Your task to perform on an android device: Open Youtube and go to "Your channel" Image 0: 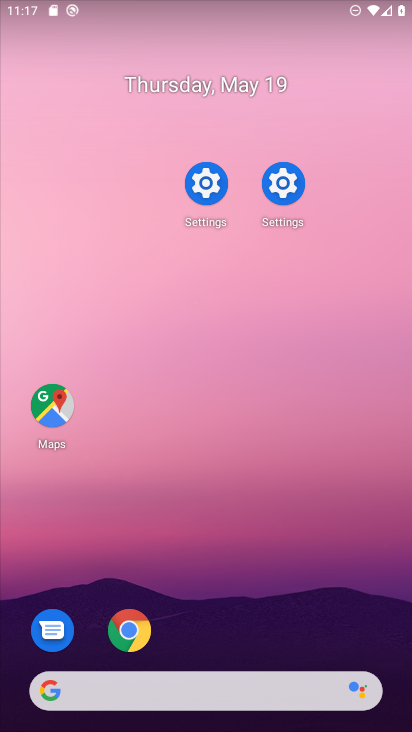
Step 0: drag from (270, 668) to (188, 64)
Your task to perform on an android device: Open Youtube and go to "Your channel" Image 1: 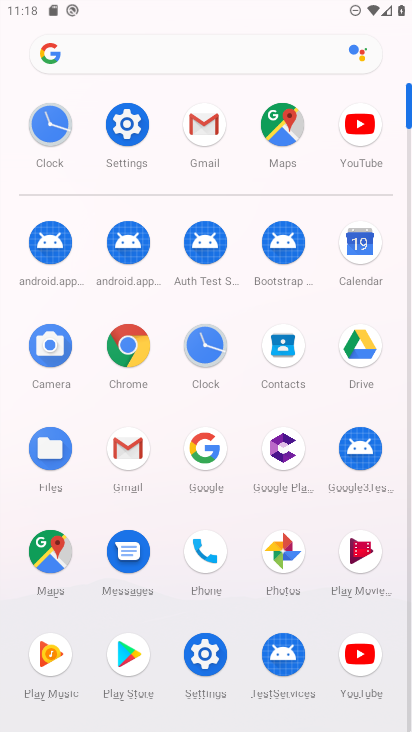
Step 1: click (351, 667)
Your task to perform on an android device: Open Youtube and go to "Your channel" Image 2: 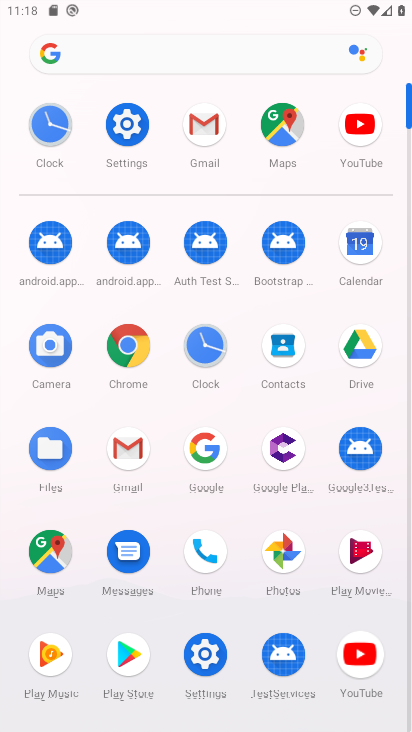
Step 2: click (351, 667)
Your task to perform on an android device: Open Youtube and go to "Your channel" Image 3: 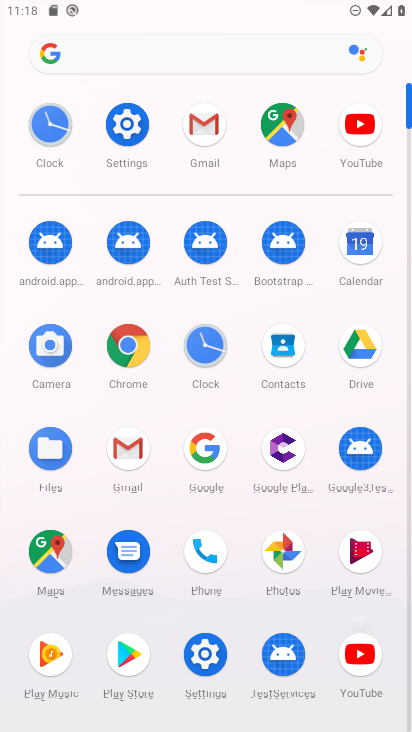
Step 3: click (351, 668)
Your task to perform on an android device: Open Youtube and go to "Your channel" Image 4: 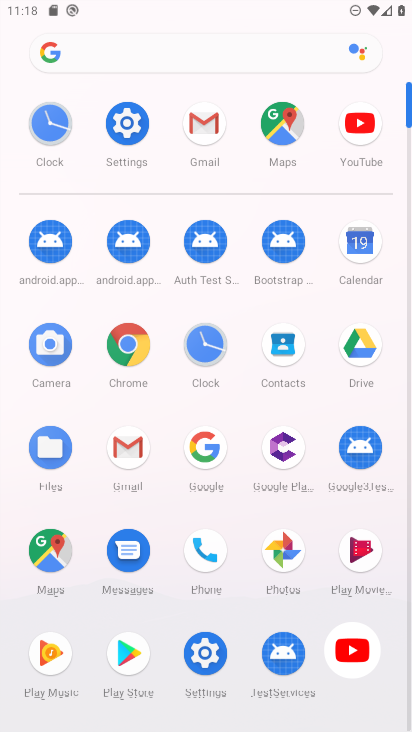
Step 4: click (351, 668)
Your task to perform on an android device: Open Youtube and go to "Your channel" Image 5: 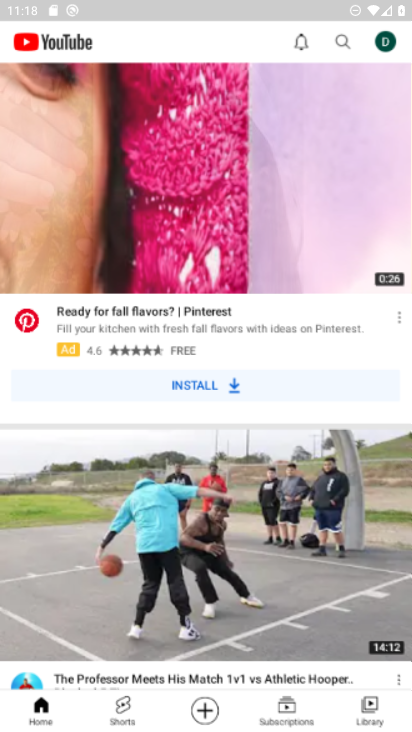
Step 5: click (351, 667)
Your task to perform on an android device: Open Youtube and go to "Your channel" Image 6: 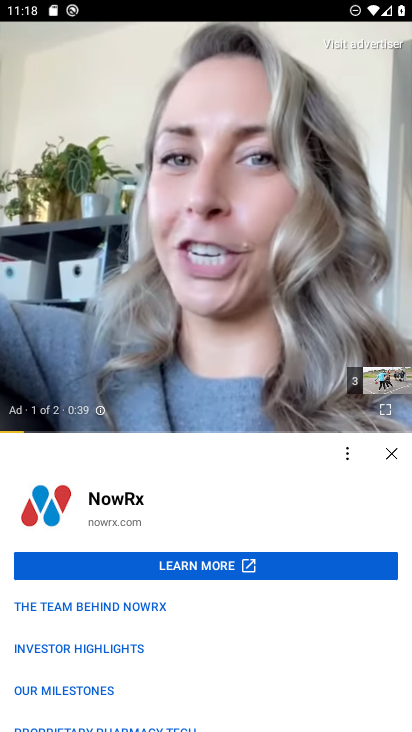
Step 6: press back button
Your task to perform on an android device: Open Youtube and go to "Your channel" Image 7: 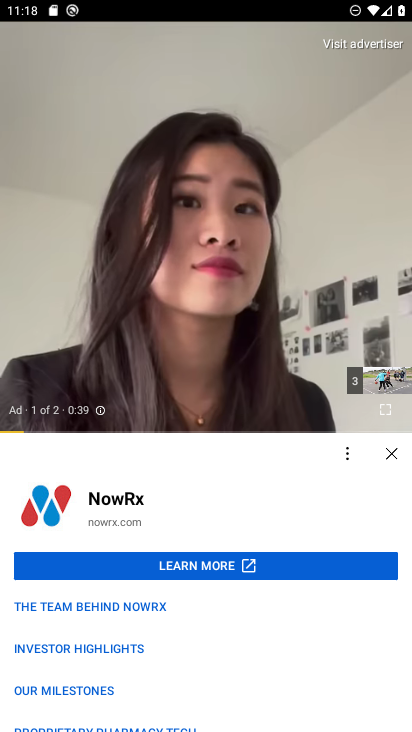
Step 7: press back button
Your task to perform on an android device: Open Youtube and go to "Your channel" Image 8: 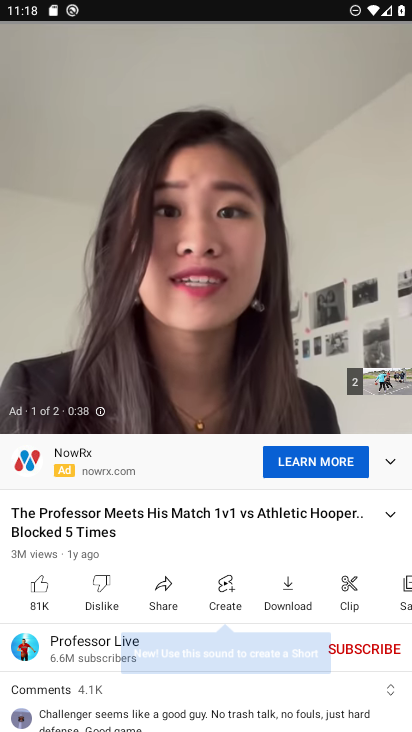
Step 8: press back button
Your task to perform on an android device: Open Youtube and go to "Your channel" Image 9: 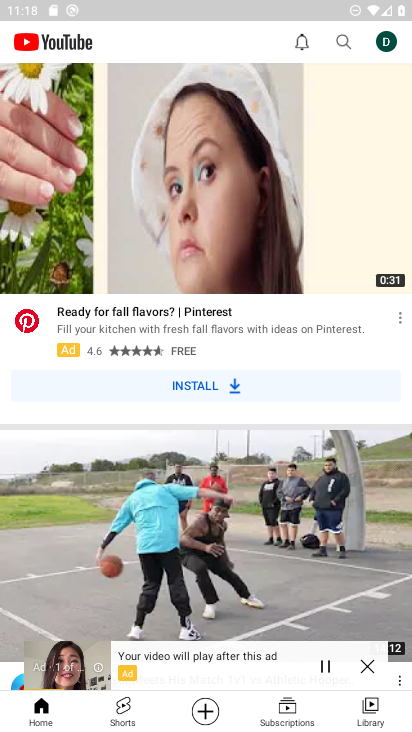
Step 9: press home button
Your task to perform on an android device: Open Youtube and go to "Your channel" Image 10: 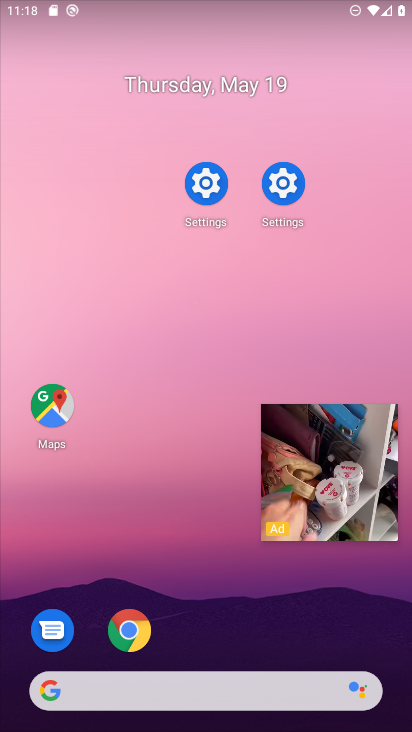
Step 10: click (382, 419)
Your task to perform on an android device: Open Youtube and go to "Your channel" Image 11: 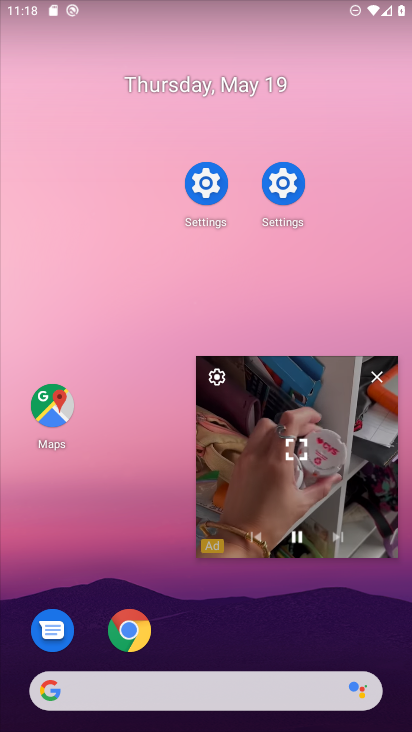
Step 11: click (380, 417)
Your task to perform on an android device: Open Youtube and go to "Your channel" Image 12: 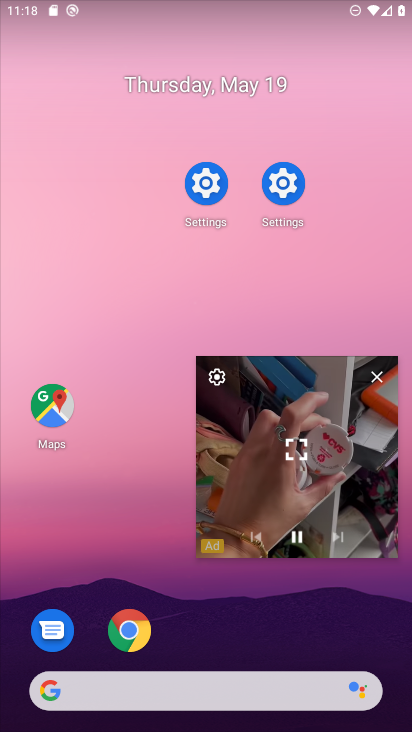
Step 12: click (380, 417)
Your task to perform on an android device: Open Youtube and go to "Your channel" Image 13: 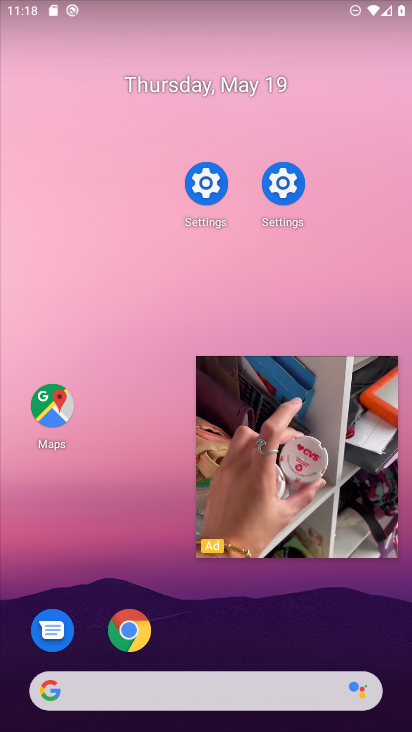
Step 13: click (376, 379)
Your task to perform on an android device: Open Youtube and go to "Your channel" Image 14: 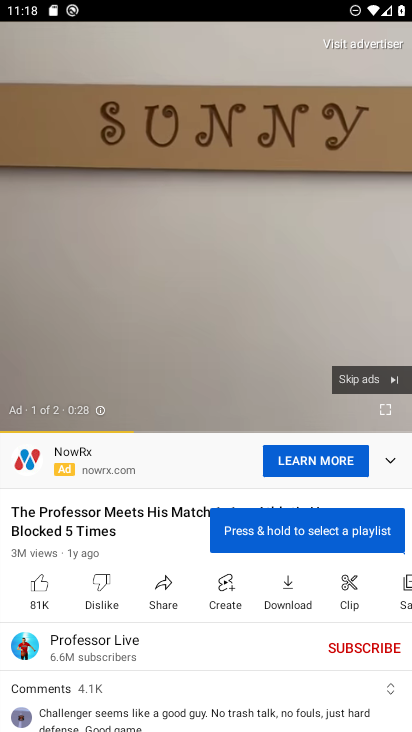
Step 14: press back button
Your task to perform on an android device: Open Youtube and go to "Your channel" Image 15: 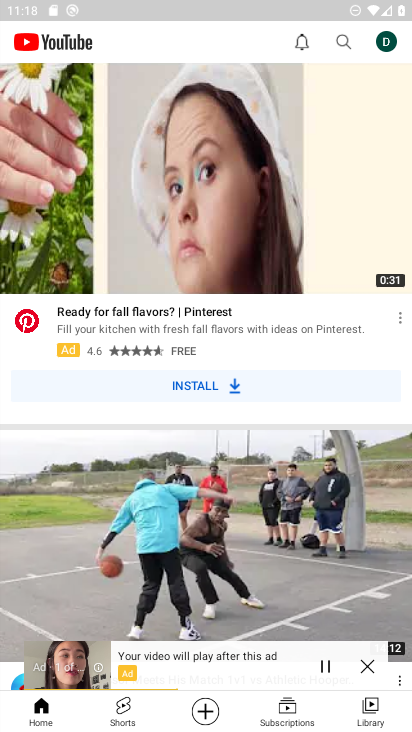
Step 15: click (365, 661)
Your task to perform on an android device: Open Youtube and go to "Your channel" Image 16: 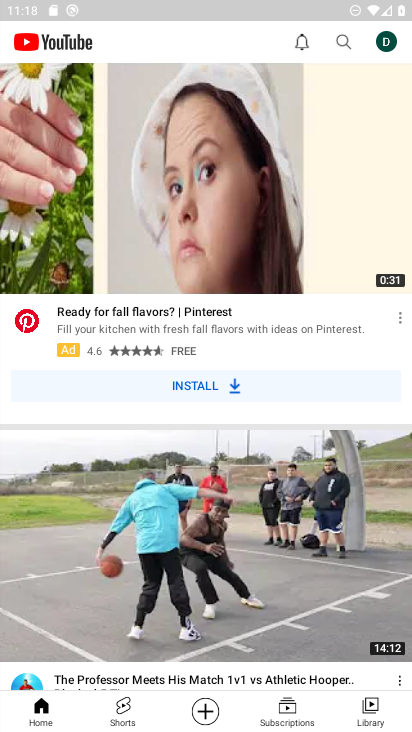
Step 16: press home button
Your task to perform on an android device: Open Youtube and go to "Your channel" Image 17: 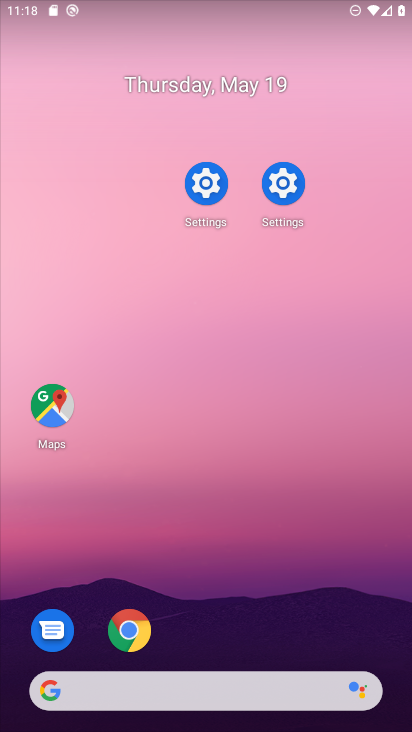
Step 17: drag from (299, 630) to (217, 91)
Your task to perform on an android device: Open Youtube and go to "Your channel" Image 18: 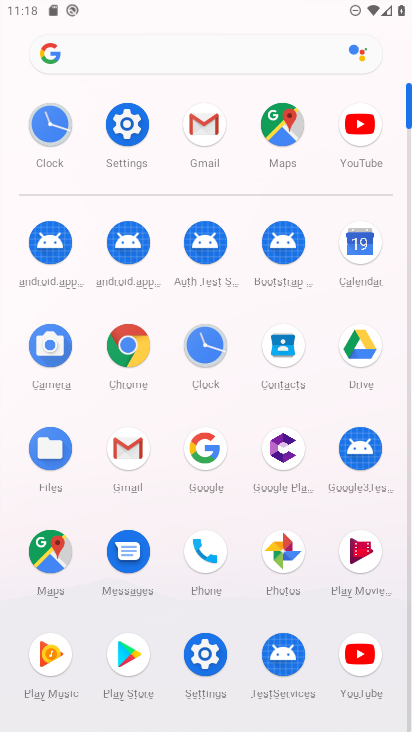
Step 18: click (360, 653)
Your task to perform on an android device: Open Youtube and go to "Your channel" Image 19: 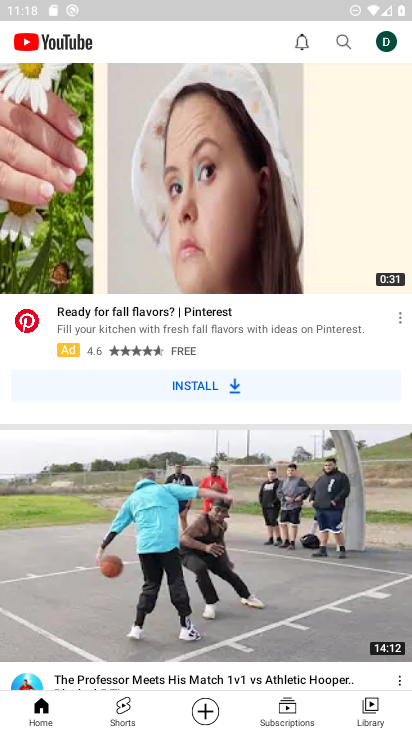
Step 19: task complete